Your task to perform on an android device: Search for Italian restaurants on Maps Image 0: 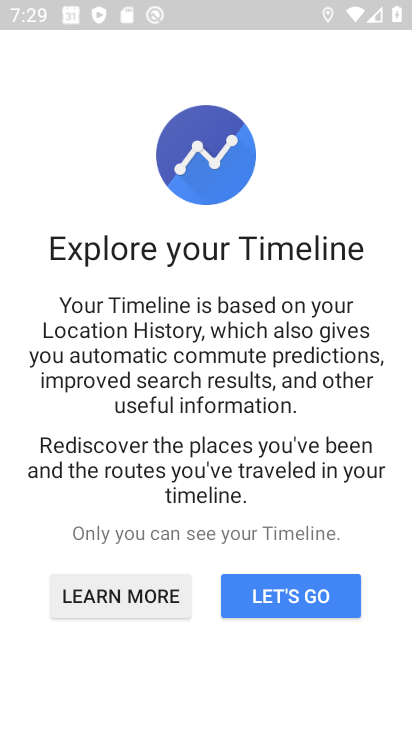
Step 0: press home button
Your task to perform on an android device: Search for Italian restaurants on Maps Image 1: 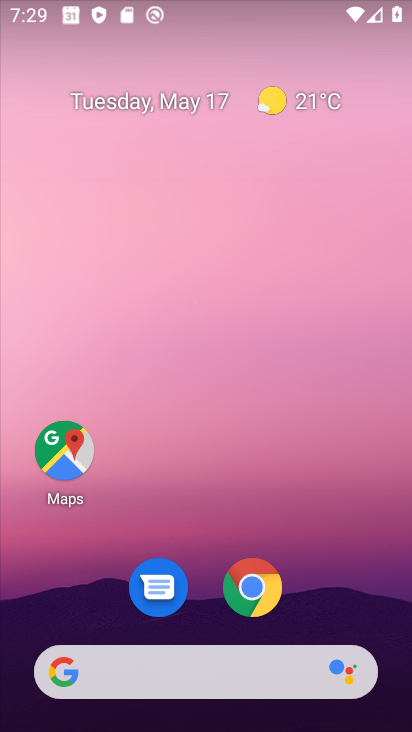
Step 1: drag from (379, 590) to (378, 224)
Your task to perform on an android device: Search for Italian restaurants on Maps Image 2: 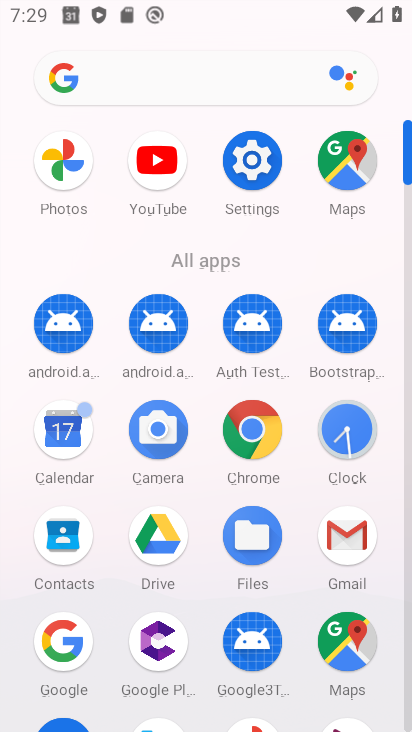
Step 2: drag from (408, 626) to (397, 444)
Your task to perform on an android device: Search for Italian restaurants on Maps Image 3: 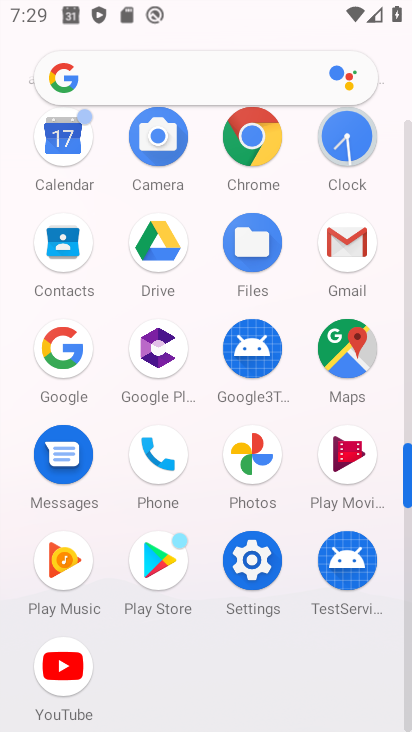
Step 3: click (356, 363)
Your task to perform on an android device: Search for Italian restaurants on Maps Image 4: 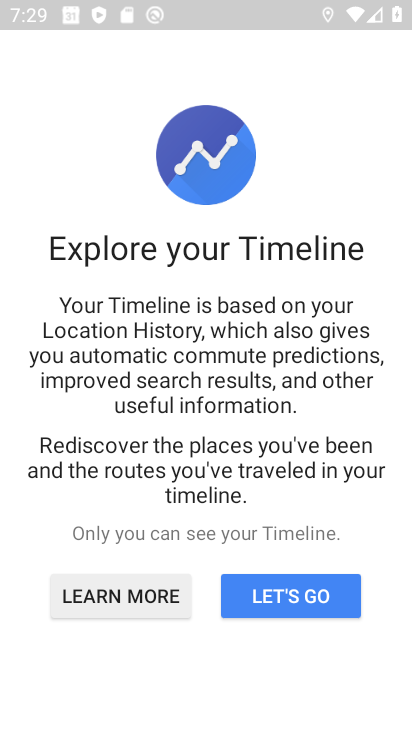
Step 4: click (274, 603)
Your task to perform on an android device: Search for Italian restaurants on Maps Image 5: 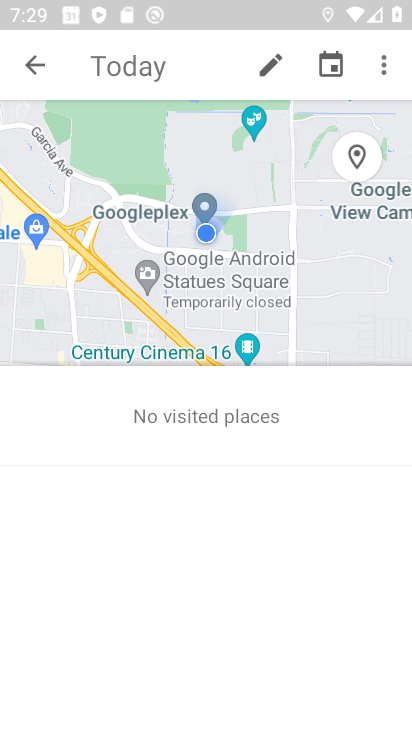
Step 5: click (38, 71)
Your task to perform on an android device: Search for Italian restaurants on Maps Image 6: 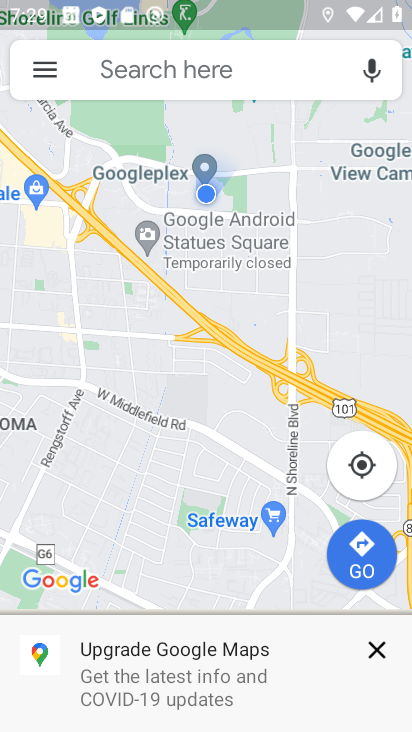
Step 6: click (306, 78)
Your task to perform on an android device: Search for Italian restaurants on Maps Image 7: 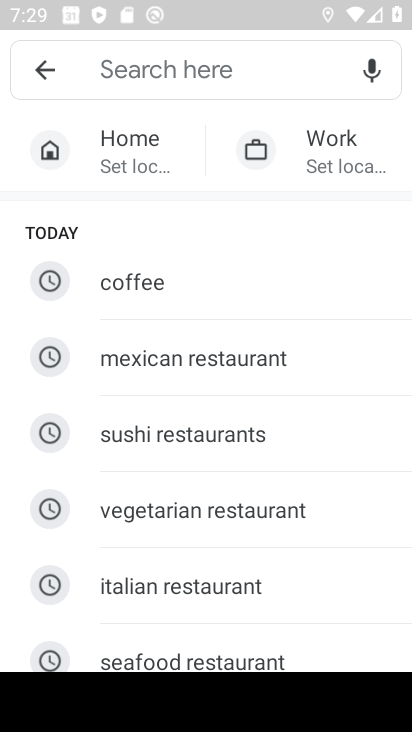
Step 7: type "italian restaurants"
Your task to perform on an android device: Search for Italian restaurants on Maps Image 8: 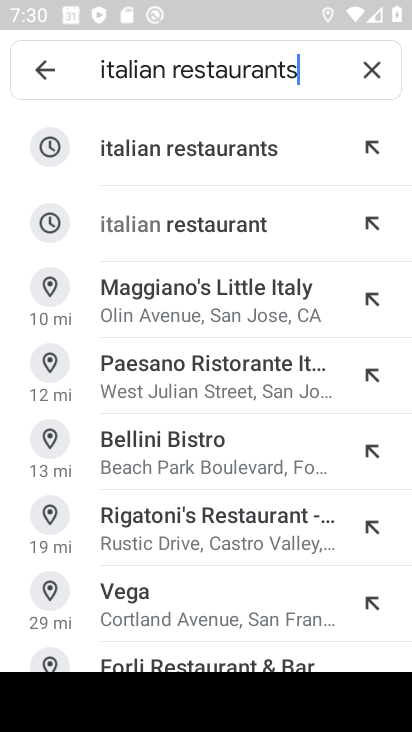
Step 8: click (262, 157)
Your task to perform on an android device: Search for Italian restaurants on Maps Image 9: 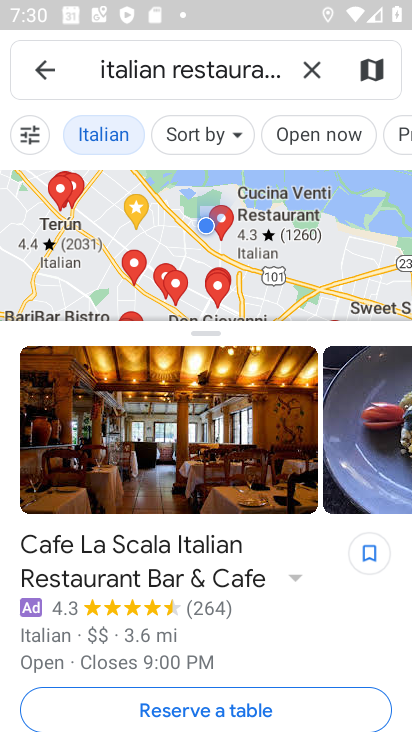
Step 9: task complete